Your task to perform on an android device: open app "Roku - Official Remote Control" (install if not already installed) and enter user name: "autumnal@gmail.com" and password: "stuffing" Image 0: 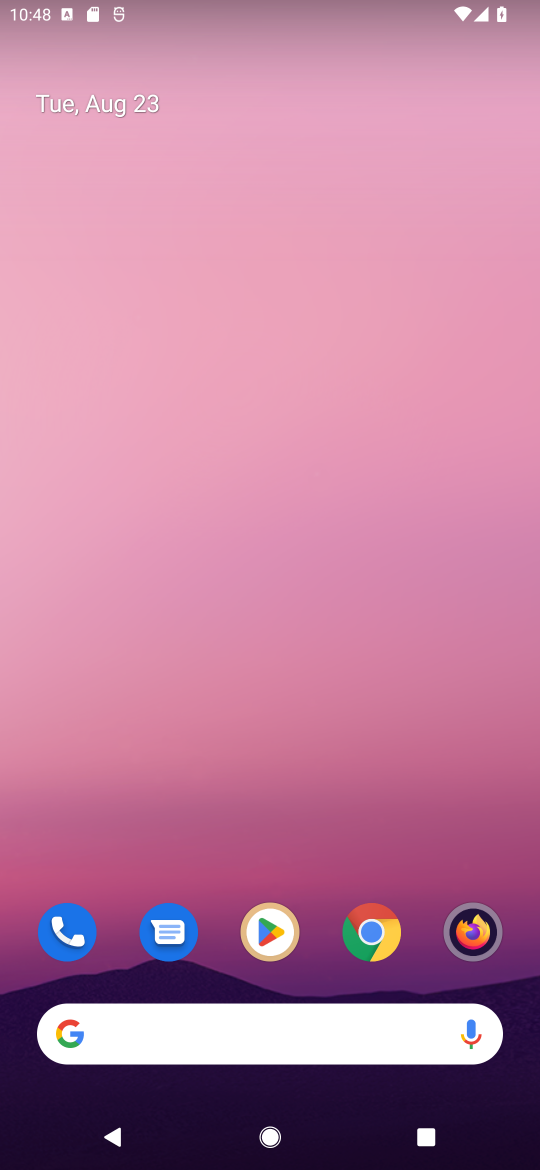
Step 0: click (251, 924)
Your task to perform on an android device: open app "Roku - Official Remote Control" (install if not already installed) and enter user name: "autumnal@gmail.com" and password: "stuffing" Image 1: 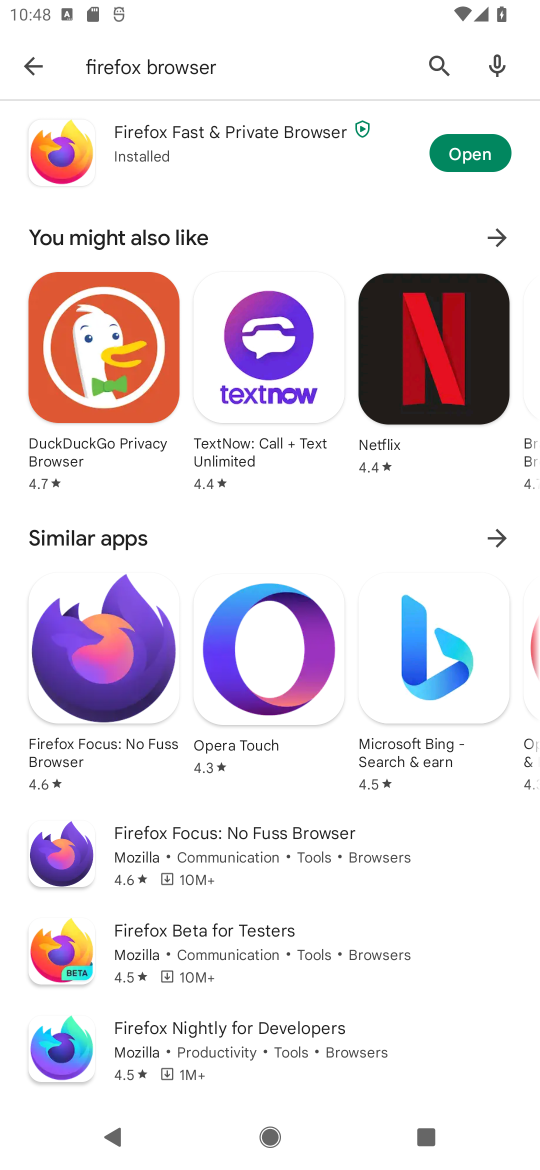
Step 1: click (450, 62)
Your task to perform on an android device: open app "Roku - Official Remote Control" (install if not already installed) and enter user name: "autumnal@gmail.com" and password: "stuffing" Image 2: 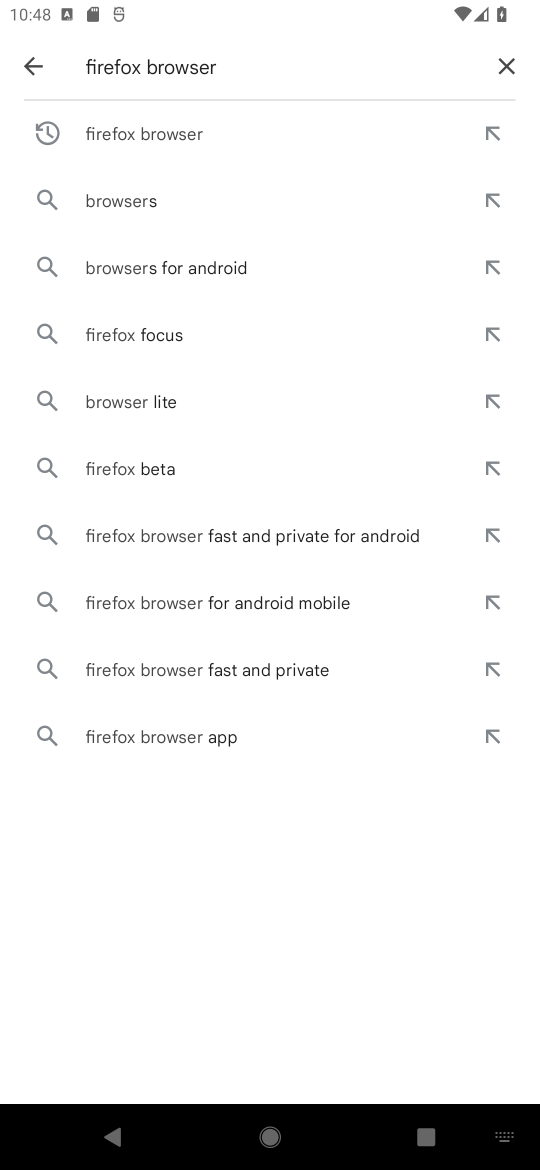
Step 2: click (501, 63)
Your task to perform on an android device: open app "Roku - Official Remote Control" (install if not already installed) and enter user name: "autumnal@gmail.com" and password: "stuffing" Image 3: 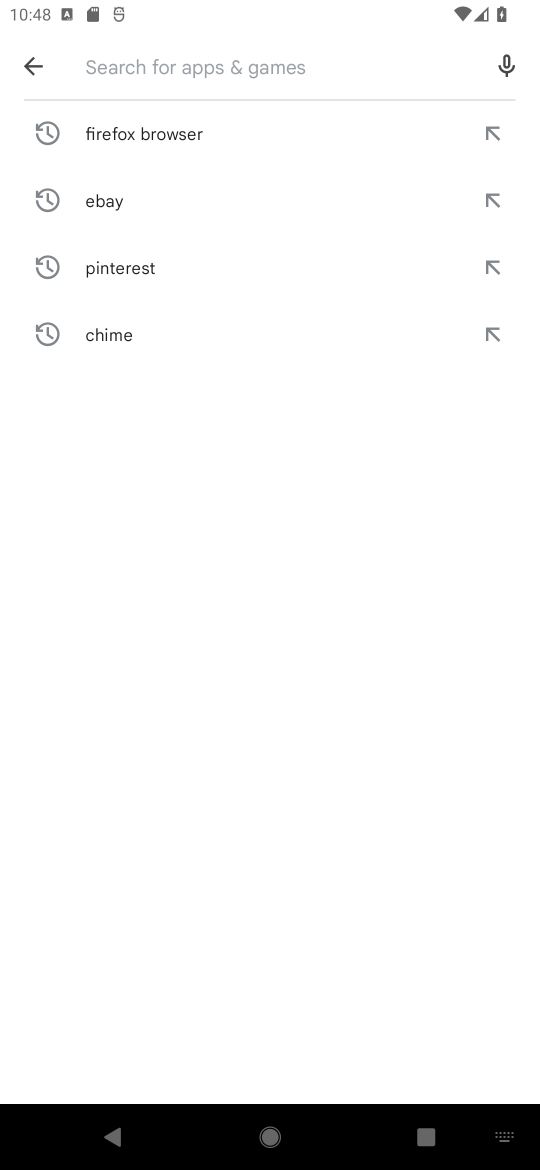
Step 3: click (184, 63)
Your task to perform on an android device: open app "Roku - Official Remote Control" (install if not already installed) and enter user name: "autumnal@gmail.com" and password: "stuffing" Image 4: 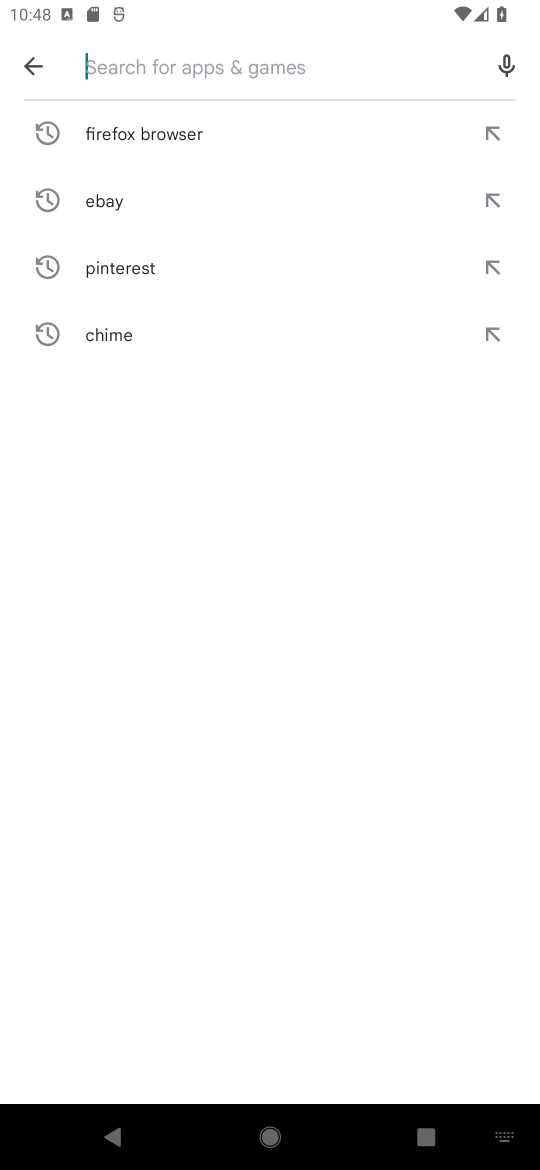
Step 4: type "Roku "
Your task to perform on an android device: open app "Roku - Official Remote Control" (install if not already installed) and enter user name: "autumnal@gmail.com" and password: "stuffing" Image 5: 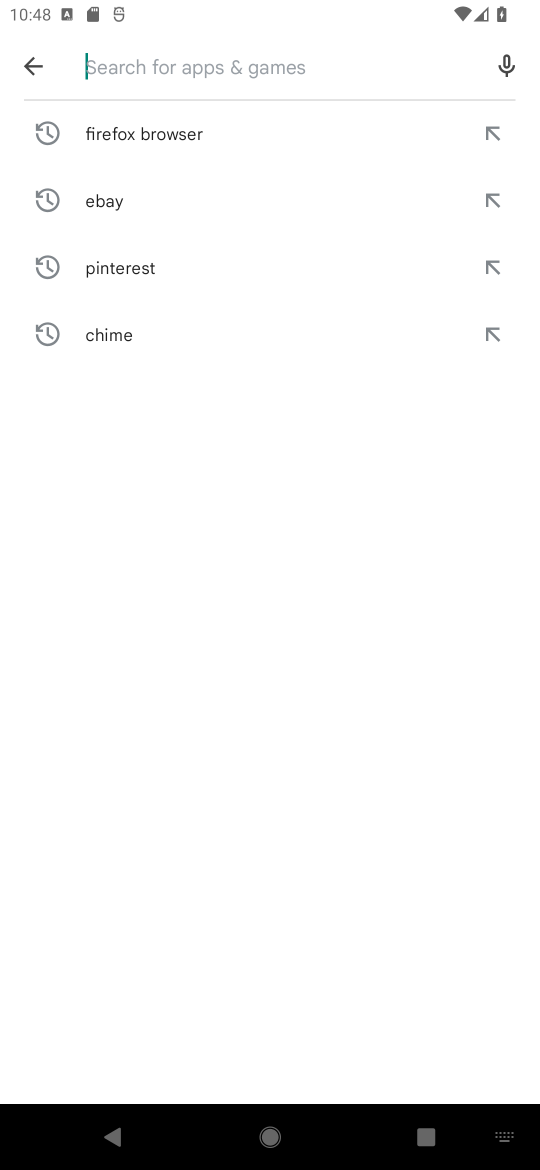
Step 5: click (277, 754)
Your task to perform on an android device: open app "Roku - Official Remote Control" (install if not already installed) and enter user name: "autumnal@gmail.com" and password: "stuffing" Image 6: 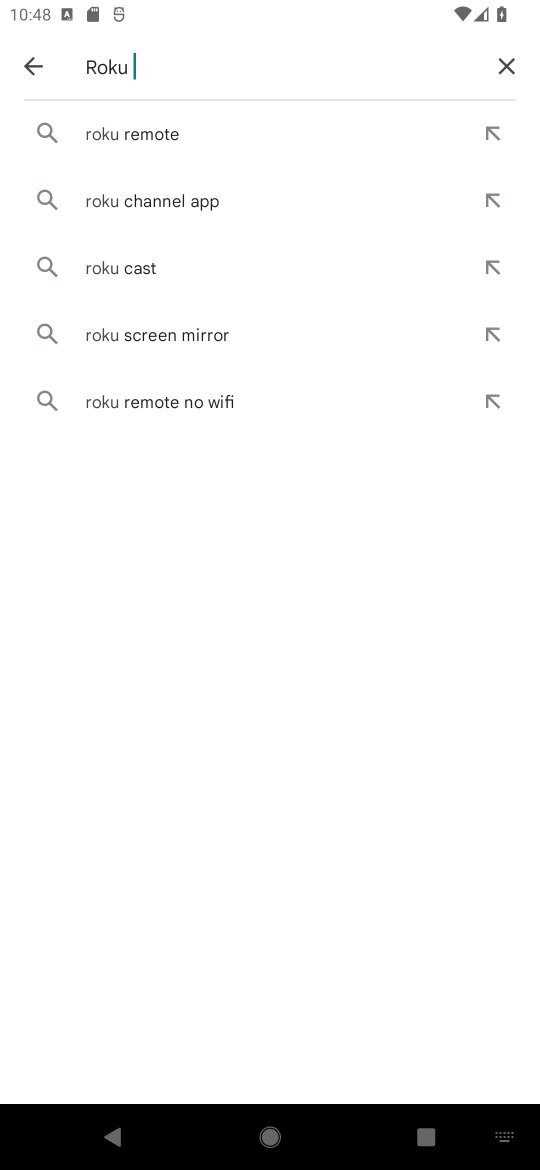
Step 6: click (151, 123)
Your task to perform on an android device: open app "Roku - Official Remote Control" (install if not already installed) and enter user name: "autumnal@gmail.com" and password: "stuffing" Image 7: 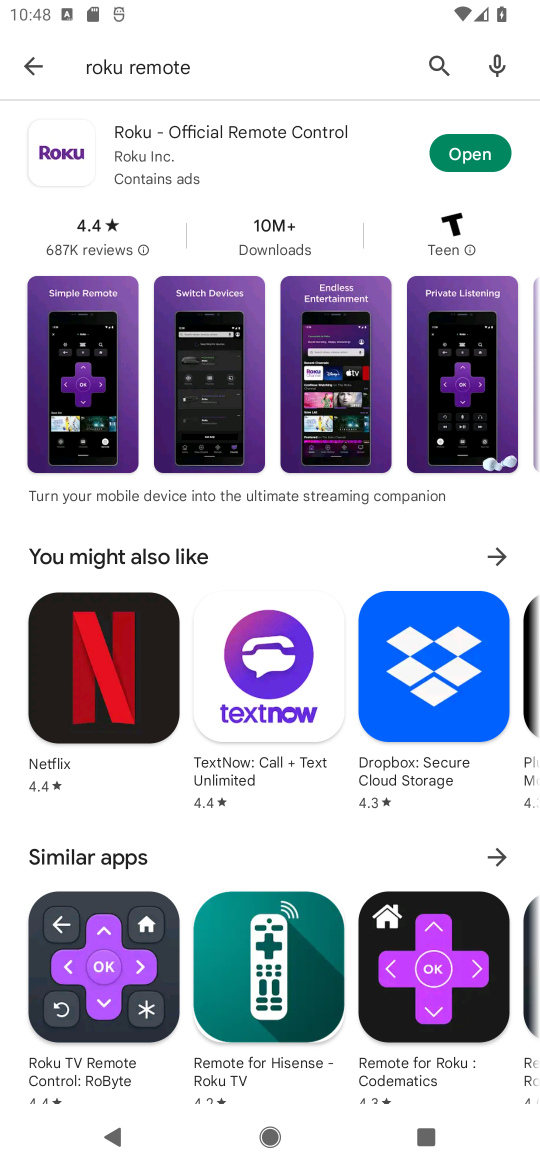
Step 7: click (487, 153)
Your task to perform on an android device: open app "Roku - Official Remote Control" (install if not already installed) and enter user name: "autumnal@gmail.com" and password: "stuffing" Image 8: 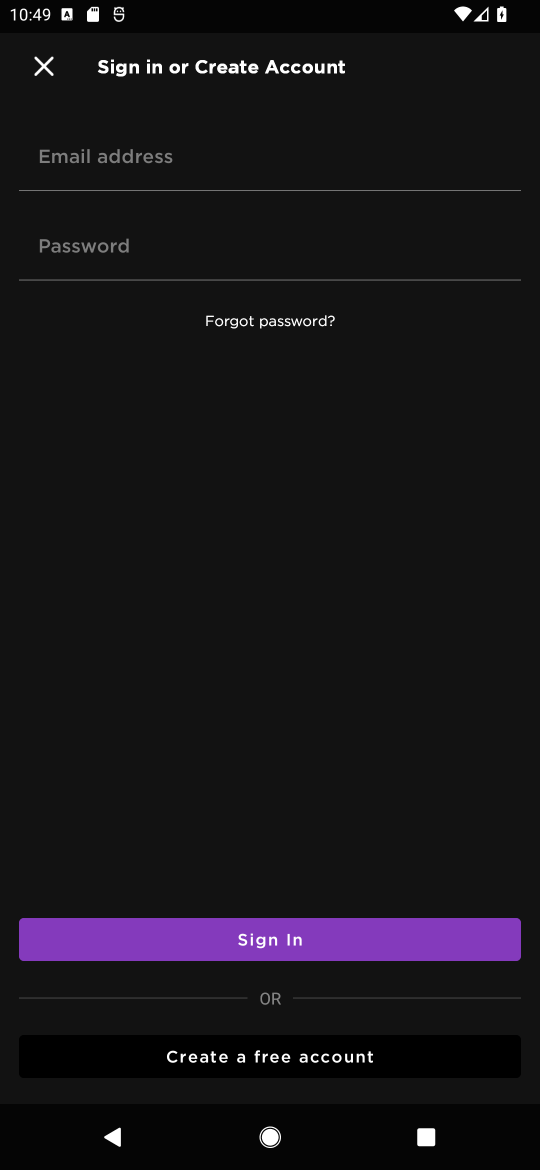
Step 8: click (106, 160)
Your task to perform on an android device: open app "Roku - Official Remote Control" (install if not already installed) and enter user name: "autumnal@gmail.com" and password: "stuffing" Image 9: 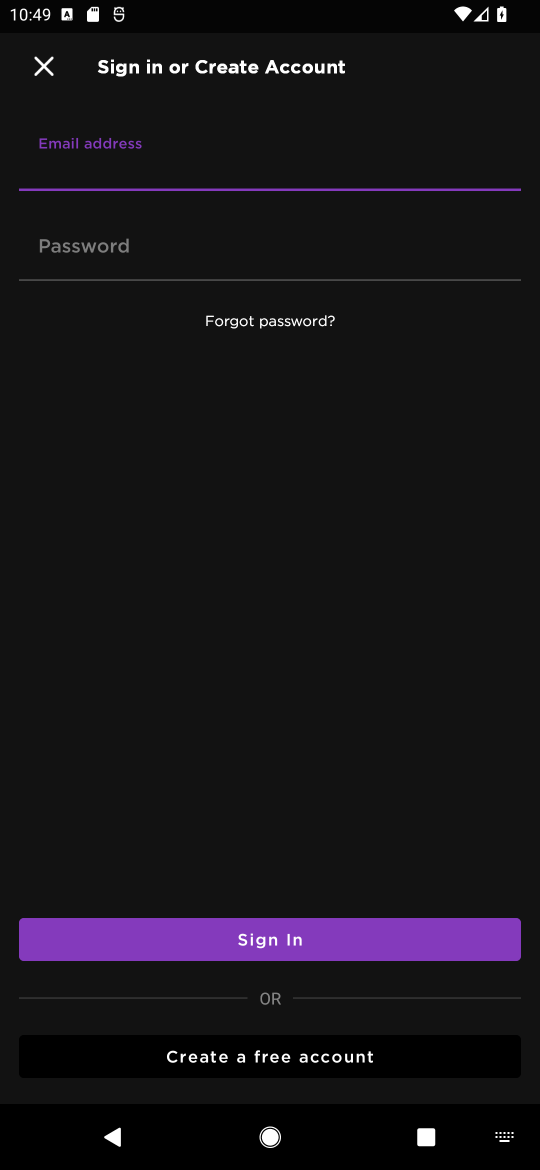
Step 9: type "autumnal@gmail.com"
Your task to perform on an android device: open app "Roku - Official Remote Control" (install if not already installed) and enter user name: "autumnal@gmail.com" and password: "stuffing" Image 10: 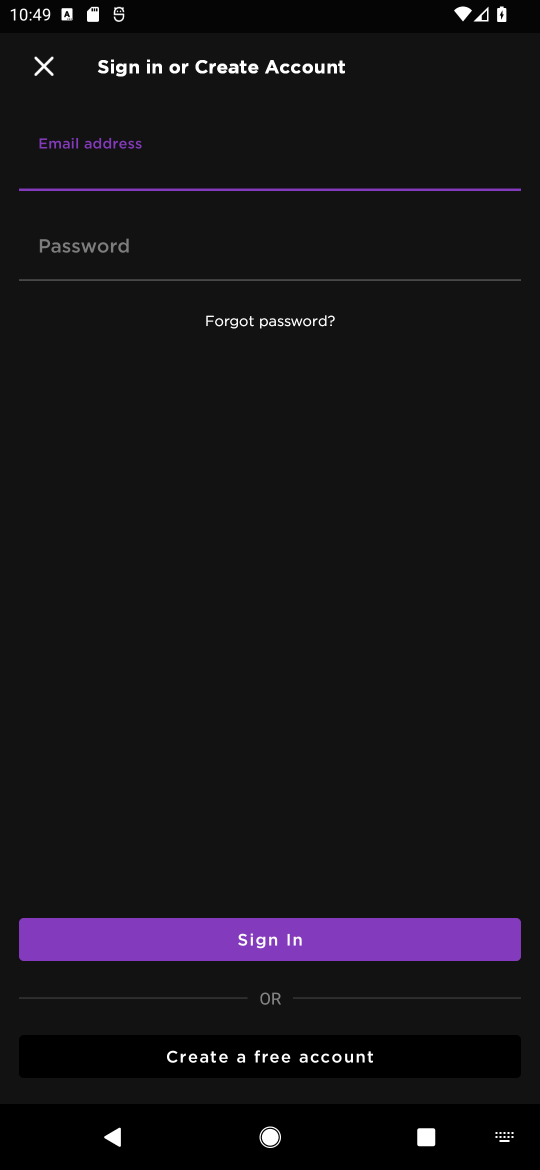
Step 10: click (215, 745)
Your task to perform on an android device: open app "Roku - Official Remote Control" (install if not already installed) and enter user name: "autumnal@gmail.com" and password: "stuffing" Image 11: 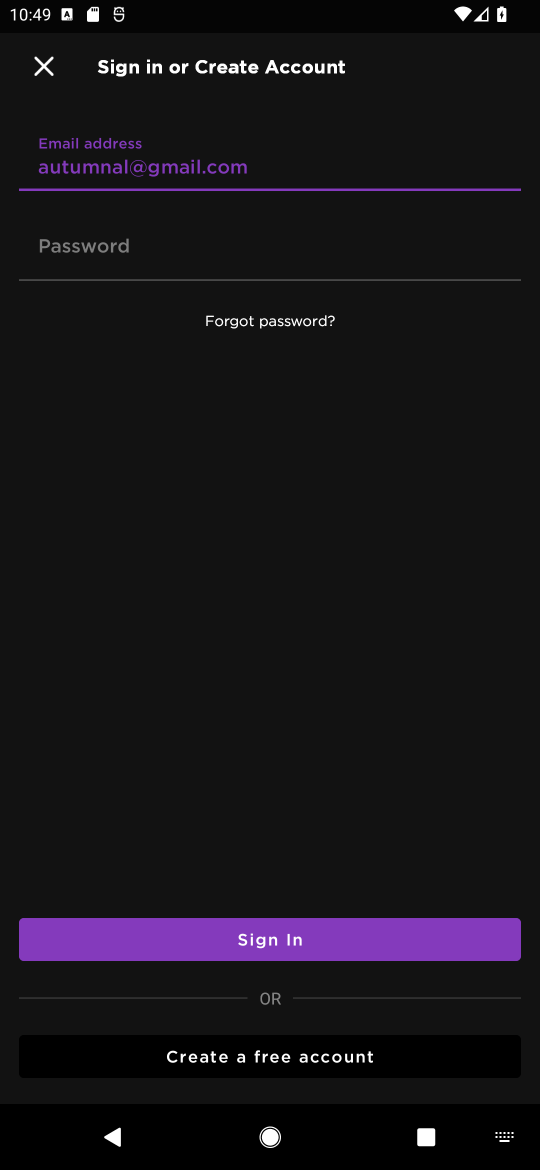
Step 11: click (108, 229)
Your task to perform on an android device: open app "Roku - Official Remote Control" (install if not already installed) and enter user name: "autumnal@gmail.com" and password: "stuffing" Image 12: 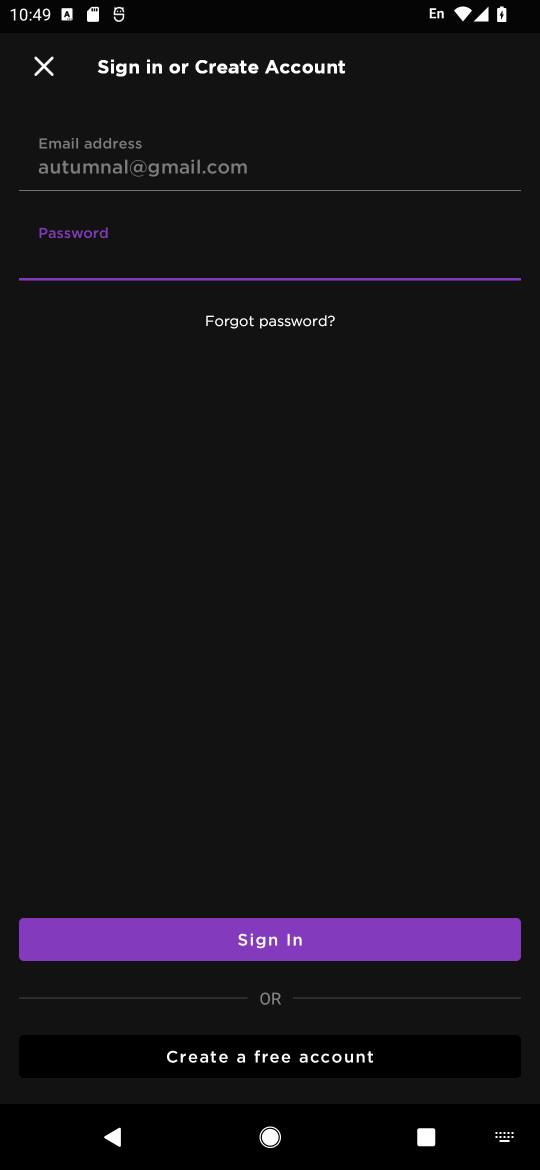
Step 12: click (100, 242)
Your task to perform on an android device: open app "Roku - Official Remote Control" (install if not already installed) and enter user name: "autumnal@gmail.com" and password: "stuffing" Image 13: 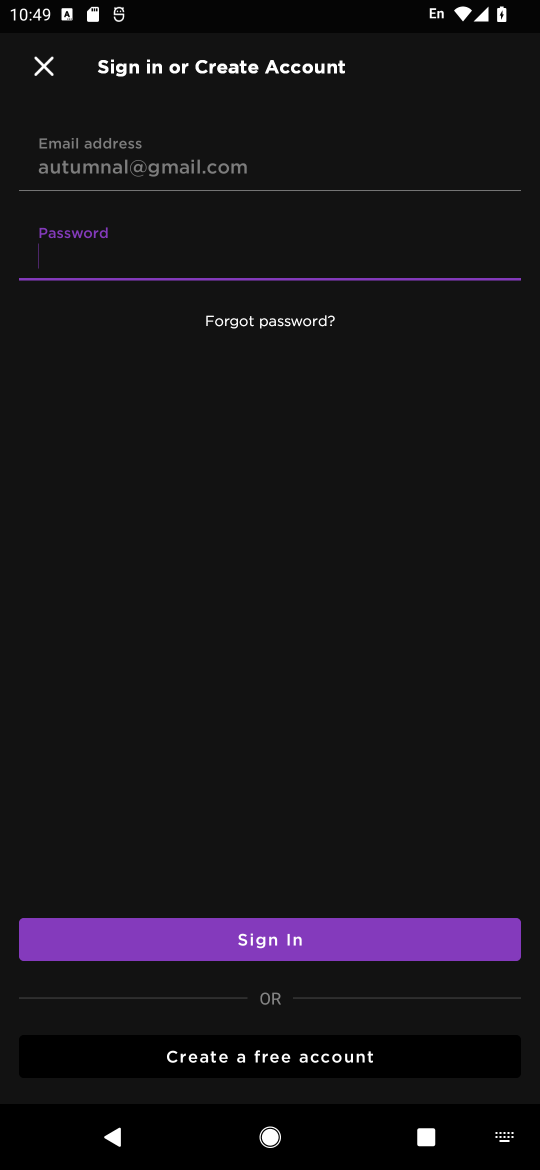
Step 13: type "stuffing"
Your task to perform on an android device: open app "Roku - Official Remote Control" (install if not already installed) and enter user name: "autumnal@gmail.com" and password: "stuffing" Image 14: 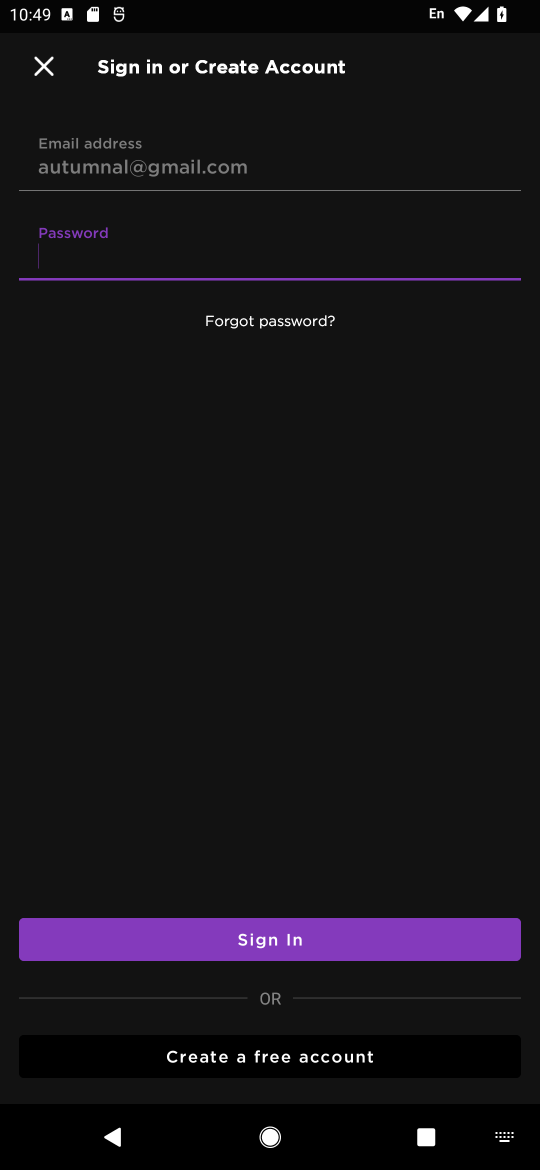
Step 14: click (250, 603)
Your task to perform on an android device: open app "Roku - Official Remote Control" (install if not already installed) and enter user name: "autumnal@gmail.com" and password: "stuffing" Image 15: 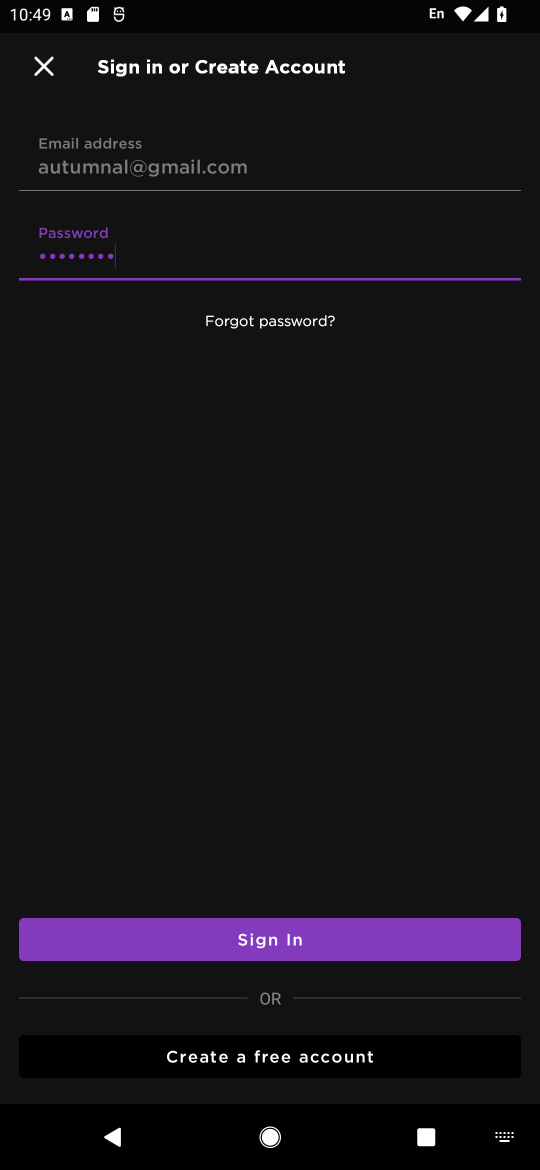
Step 15: task complete